Your task to perform on an android device: change the clock display to show seconds Image 0: 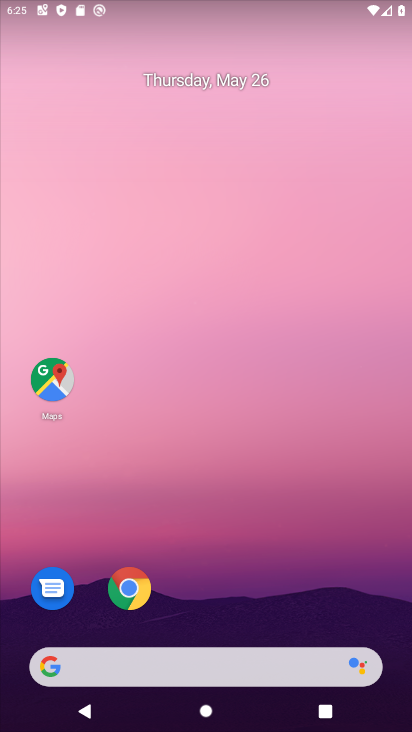
Step 0: drag from (327, 614) to (265, 9)
Your task to perform on an android device: change the clock display to show seconds Image 1: 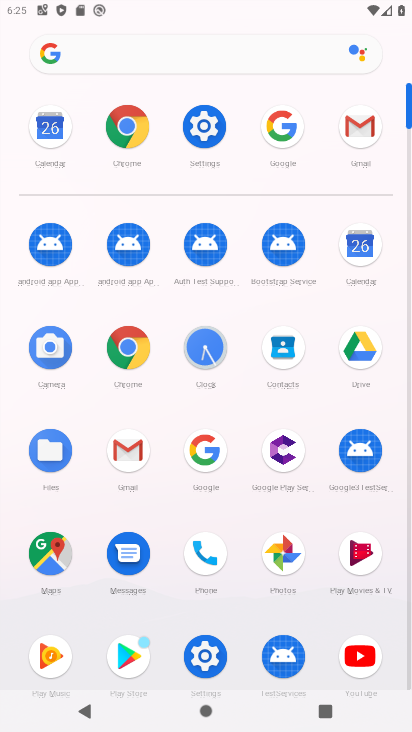
Step 1: click (210, 361)
Your task to perform on an android device: change the clock display to show seconds Image 2: 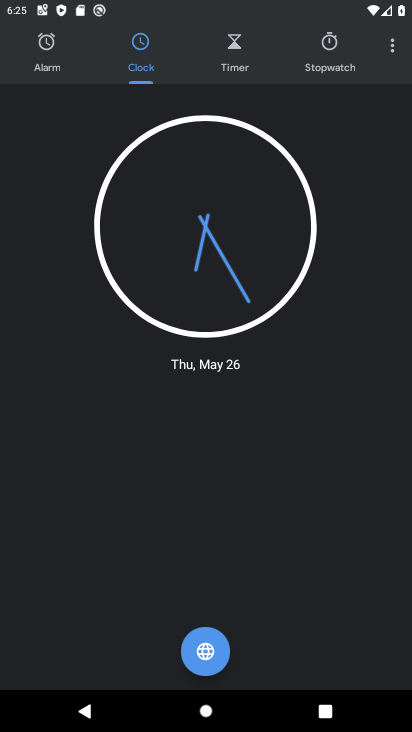
Step 2: click (388, 48)
Your task to perform on an android device: change the clock display to show seconds Image 3: 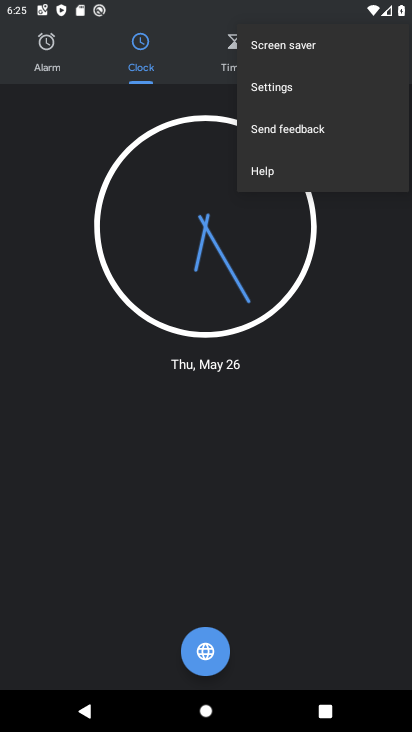
Step 3: click (245, 93)
Your task to perform on an android device: change the clock display to show seconds Image 4: 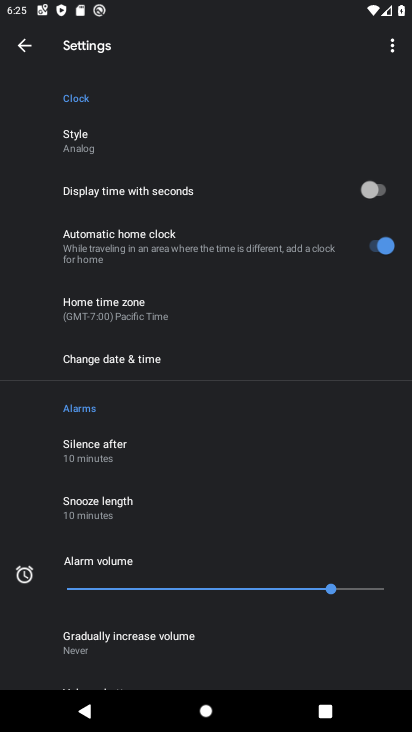
Step 4: click (330, 196)
Your task to perform on an android device: change the clock display to show seconds Image 5: 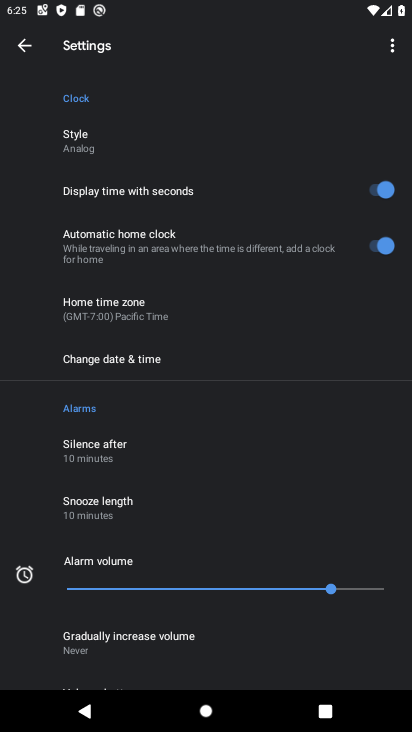
Step 5: task complete